Your task to perform on an android device: turn off javascript in the chrome app Image 0: 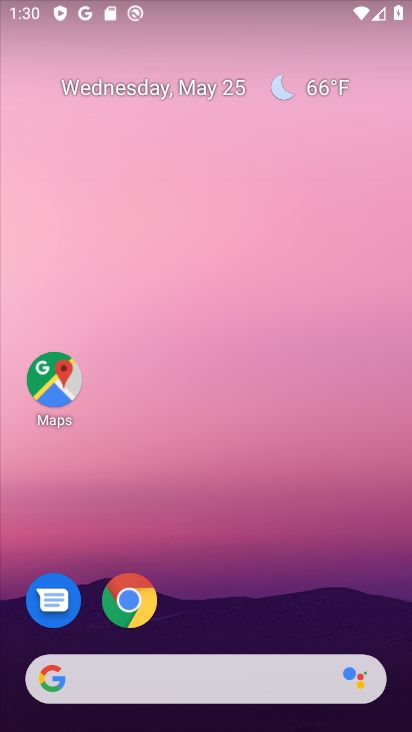
Step 0: drag from (180, 650) to (276, 121)
Your task to perform on an android device: turn off javascript in the chrome app Image 1: 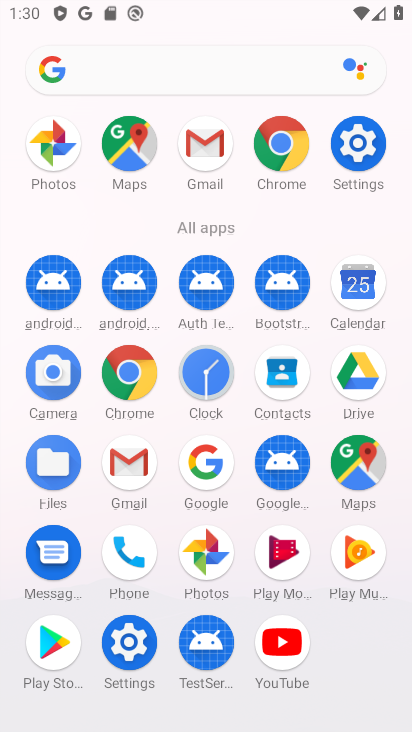
Step 1: click (141, 386)
Your task to perform on an android device: turn off javascript in the chrome app Image 2: 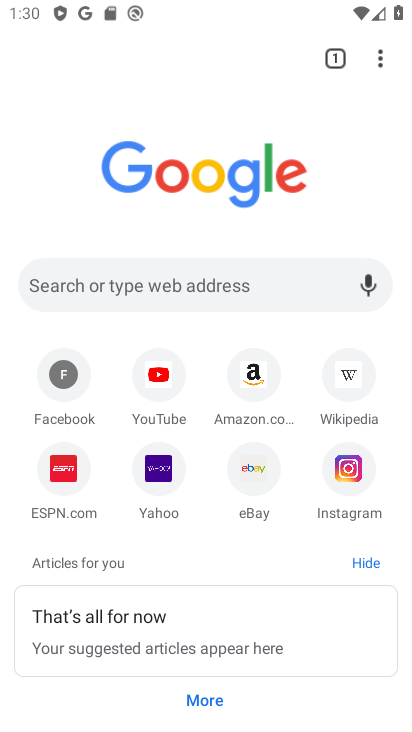
Step 2: drag from (375, 64) to (255, 486)
Your task to perform on an android device: turn off javascript in the chrome app Image 3: 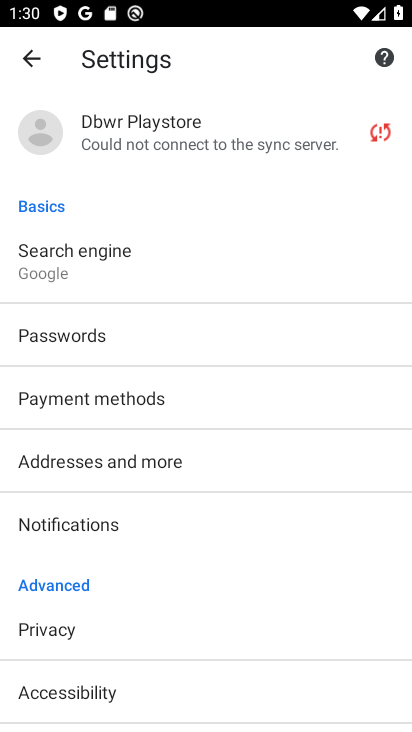
Step 3: drag from (156, 693) to (231, 477)
Your task to perform on an android device: turn off javascript in the chrome app Image 4: 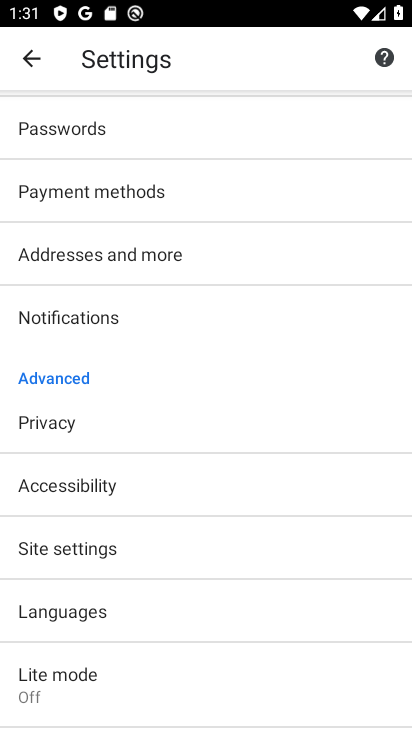
Step 4: click (138, 559)
Your task to perform on an android device: turn off javascript in the chrome app Image 5: 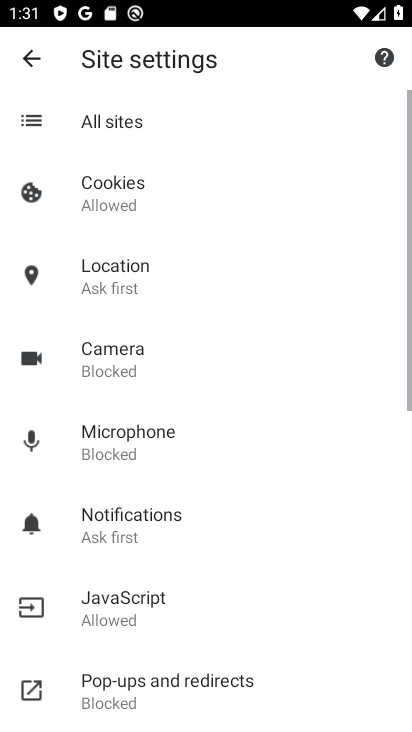
Step 5: drag from (183, 639) to (271, 316)
Your task to perform on an android device: turn off javascript in the chrome app Image 6: 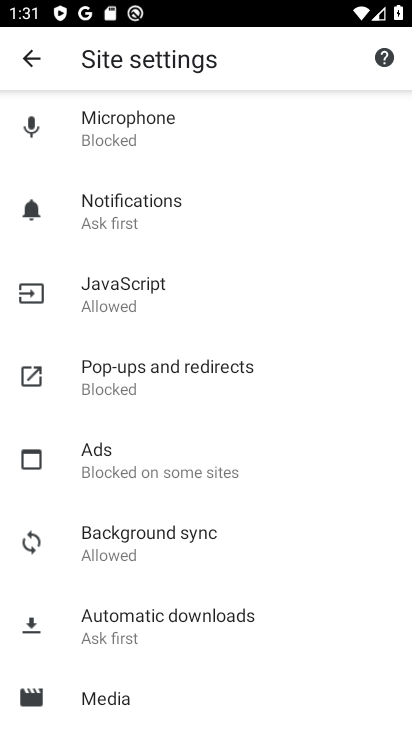
Step 6: click (183, 299)
Your task to perform on an android device: turn off javascript in the chrome app Image 7: 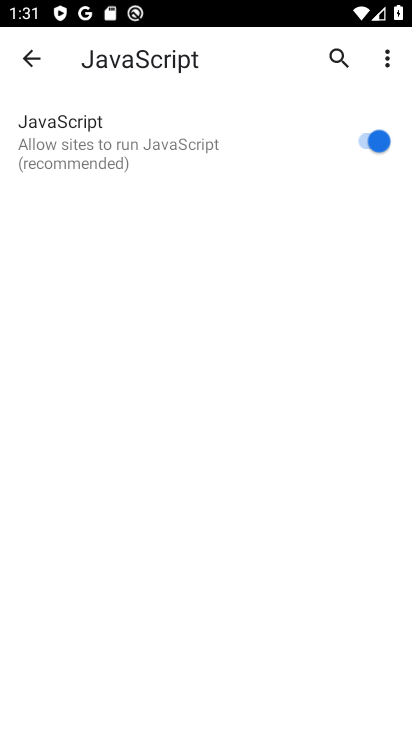
Step 7: click (367, 148)
Your task to perform on an android device: turn off javascript in the chrome app Image 8: 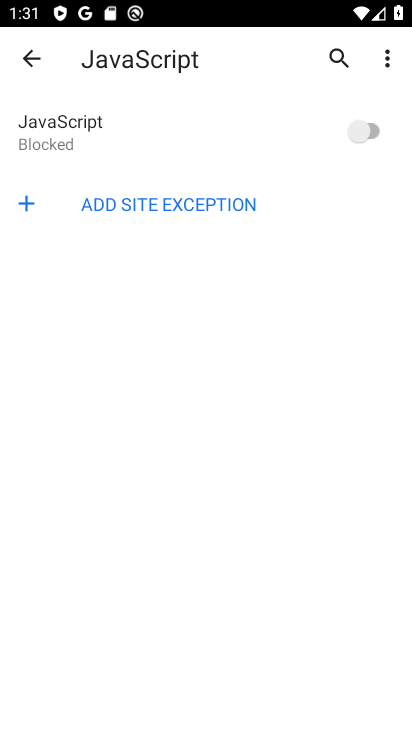
Step 8: task complete